Your task to perform on an android device: Open notification settings Image 0: 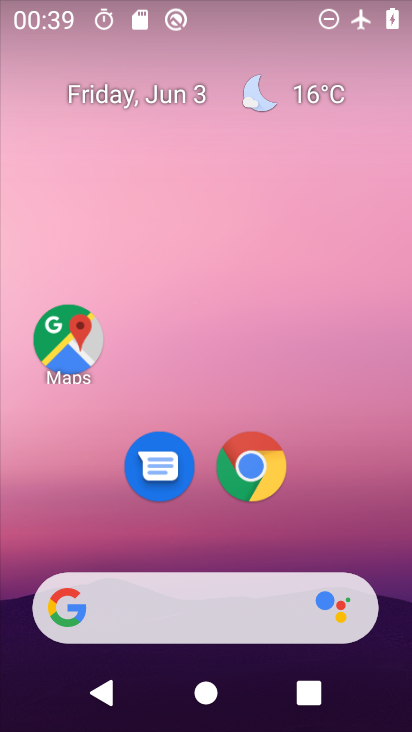
Step 0: drag from (190, 523) to (165, 178)
Your task to perform on an android device: Open notification settings Image 1: 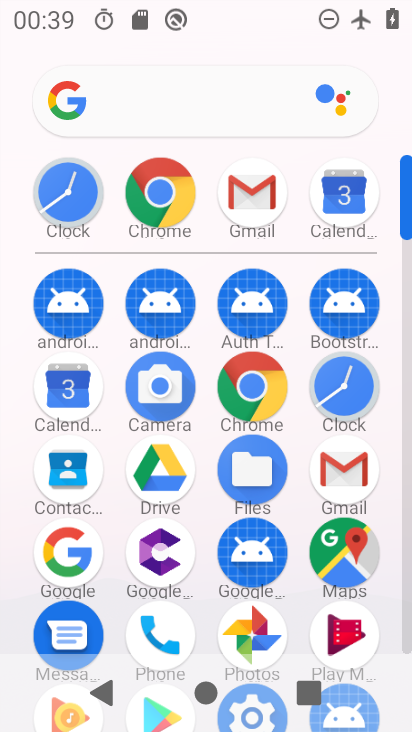
Step 1: drag from (216, 624) to (214, 309)
Your task to perform on an android device: Open notification settings Image 2: 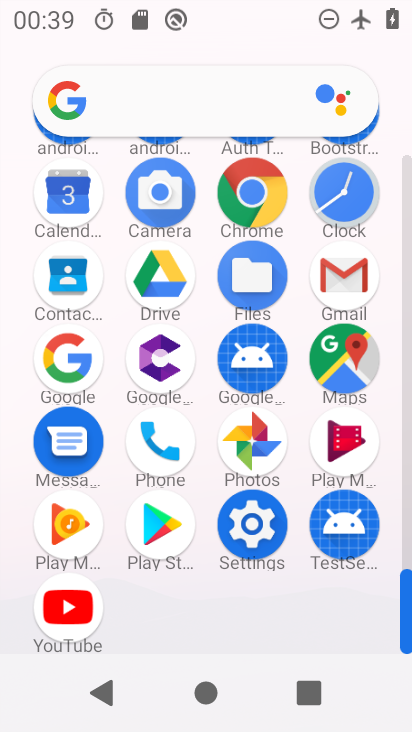
Step 2: click (247, 507)
Your task to perform on an android device: Open notification settings Image 3: 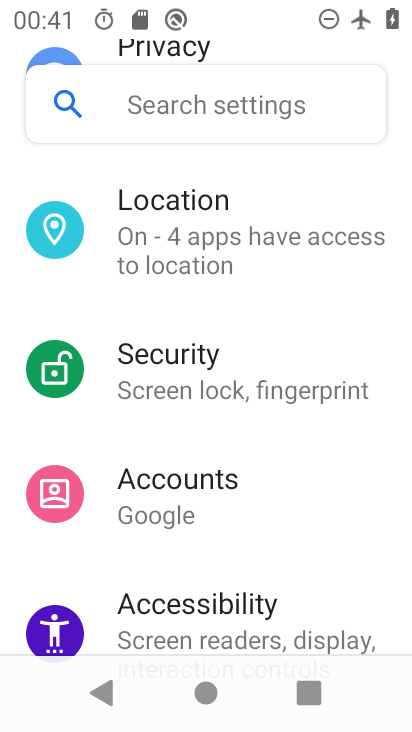
Step 3: drag from (217, 219) to (246, 444)
Your task to perform on an android device: Open notification settings Image 4: 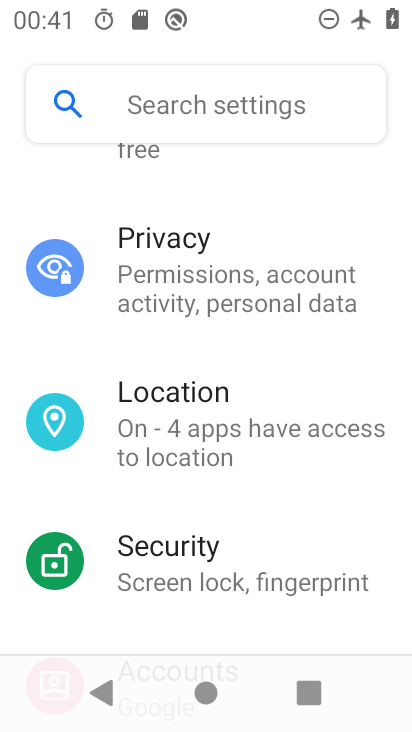
Step 4: drag from (242, 311) to (253, 482)
Your task to perform on an android device: Open notification settings Image 5: 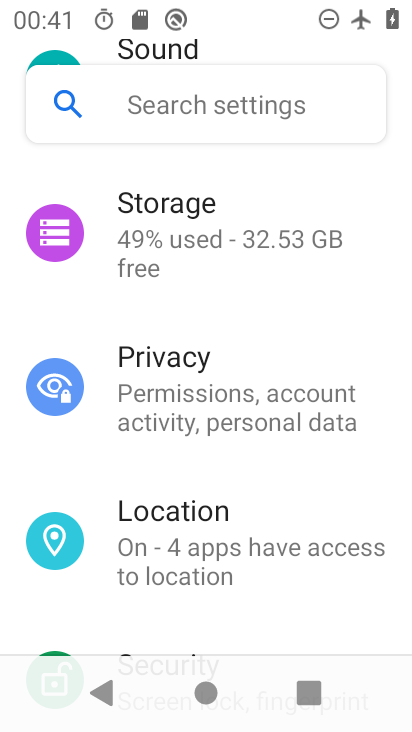
Step 5: drag from (245, 276) to (245, 465)
Your task to perform on an android device: Open notification settings Image 6: 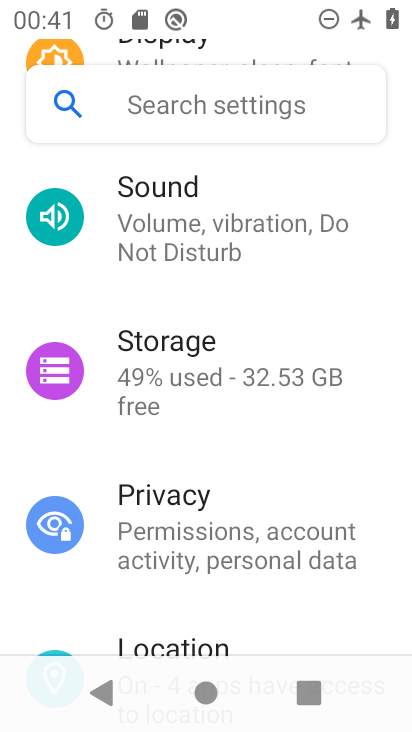
Step 6: drag from (231, 260) to (231, 535)
Your task to perform on an android device: Open notification settings Image 7: 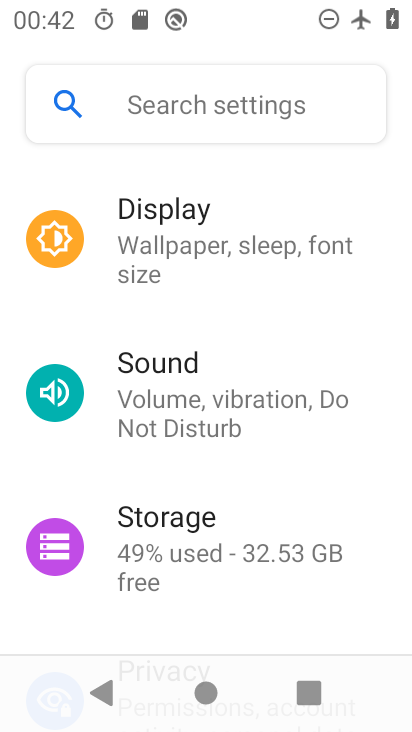
Step 7: drag from (230, 274) to (230, 508)
Your task to perform on an android device: Open notification settings Image 8: 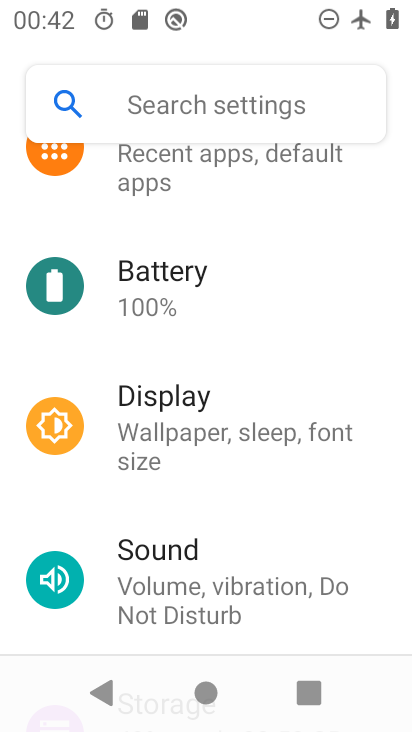
Step 8: drag from (221, 332) to (230, 415)
Your task to perform on an android device: Open notification settings Image 9: 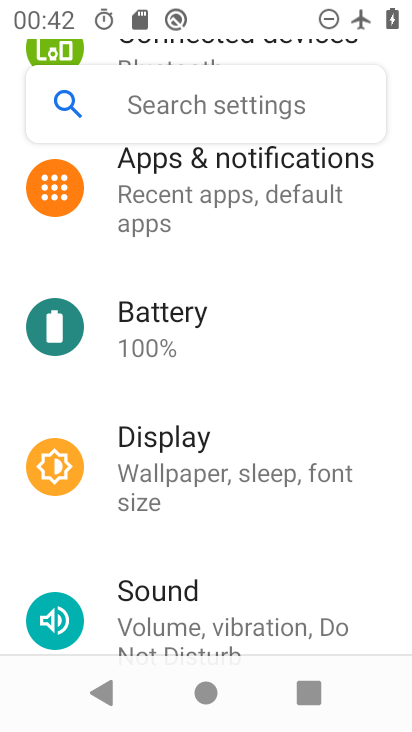
Step 9: click (226, 192)
Your task to perform on an android device: Open notification settings Image 10: 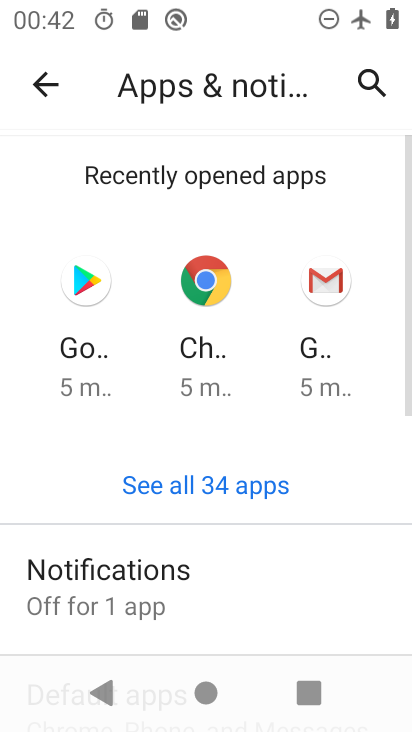
Step 10: drag from (236, 574) to (247, 225)
Your task to perform on an android device: Open notification settings Image 11: 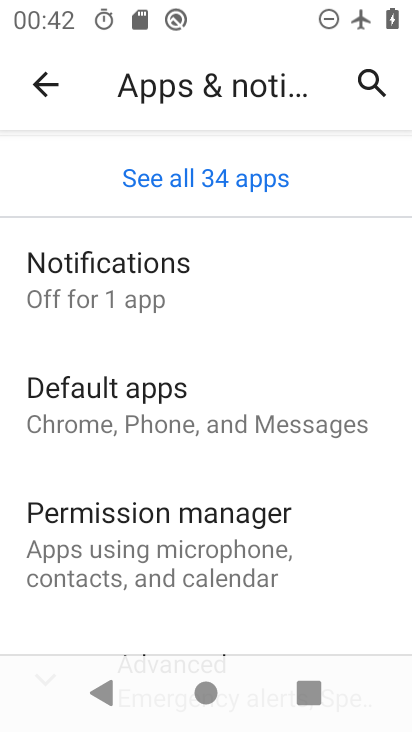
Step 11: drag from (273, 582) to (240, 333)
Your task to perform on an android device: Open notification settings Image 12: 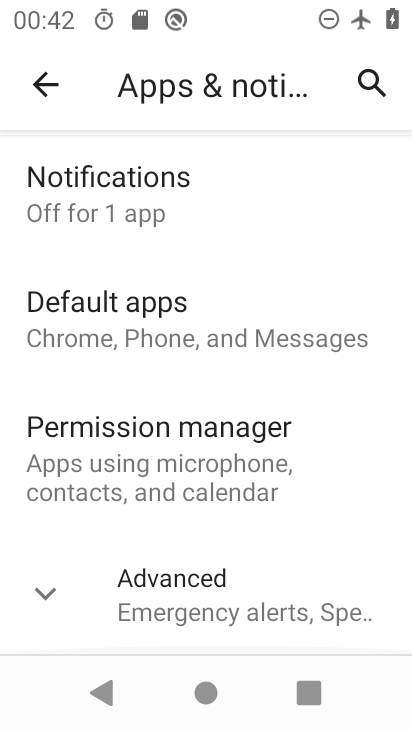
Step 12: click (158, 212)
Your task to perform on an android device: Open notification settings Image 13: 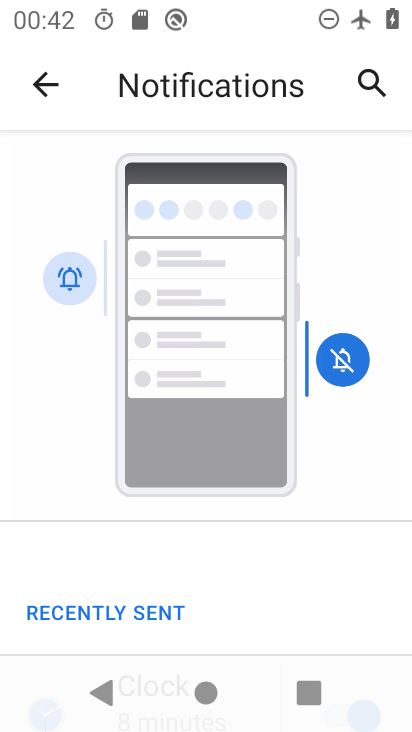
Step 13: task complete